Your task to perform on an android device: turn off wifi Image 0: 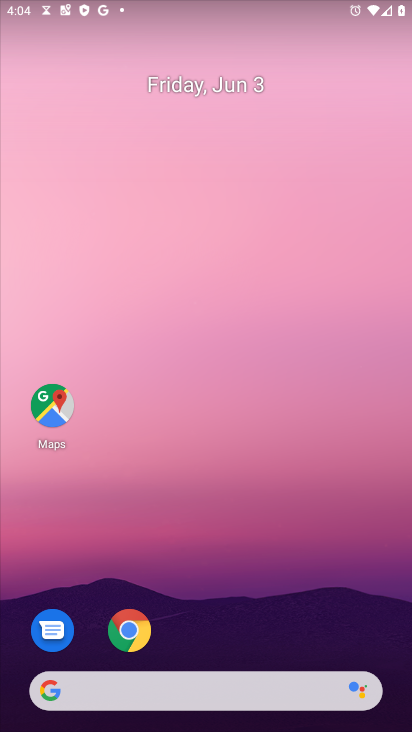
Step 0: drag from (229, 607) to (184, 30)
Your task to perform on an android device: turn off wifi Image 1: 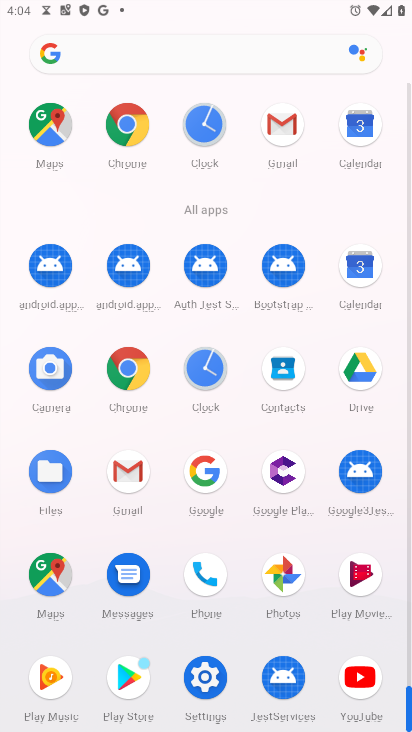
Step 1: click (204, 676)
Your task to perform on an android device: turn off wifi Image 2: 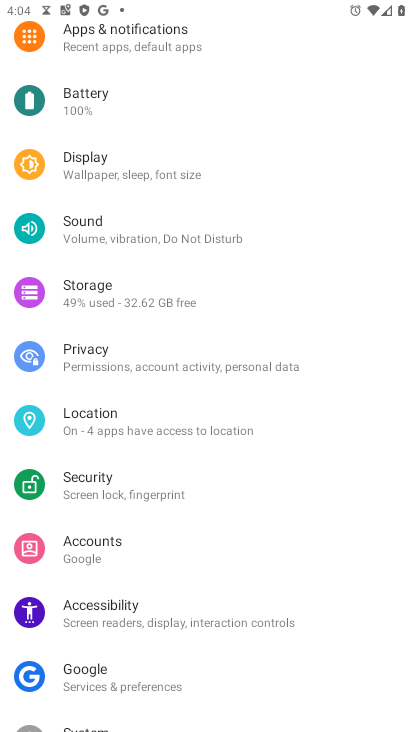
Step 2: drag from (206, 103) to (196, 615)
Your task to perform on an android device: turn off wifi Image 3: 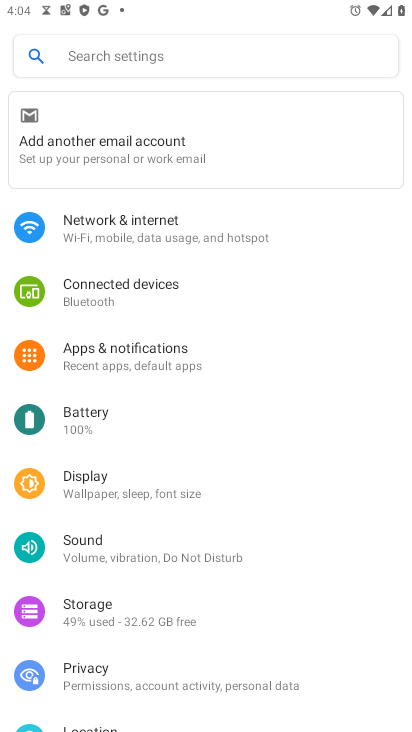
Step 3: click (165, 228)
Your task to perform on an android device: turn off wifi Image 4: 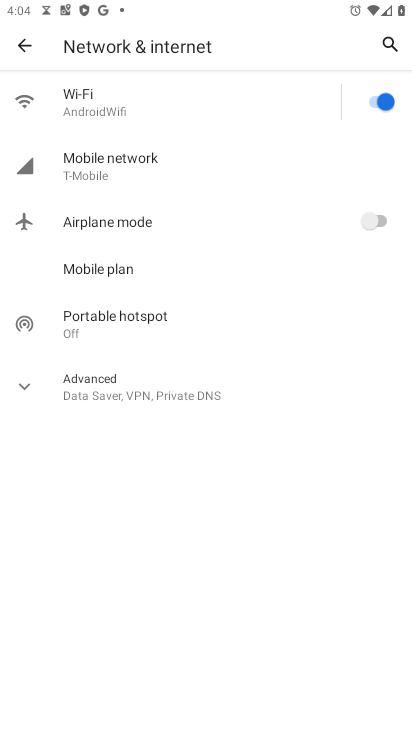
Step 4: click (380, 93)
Your task to perform on an android device: turn off wifi Image 5: 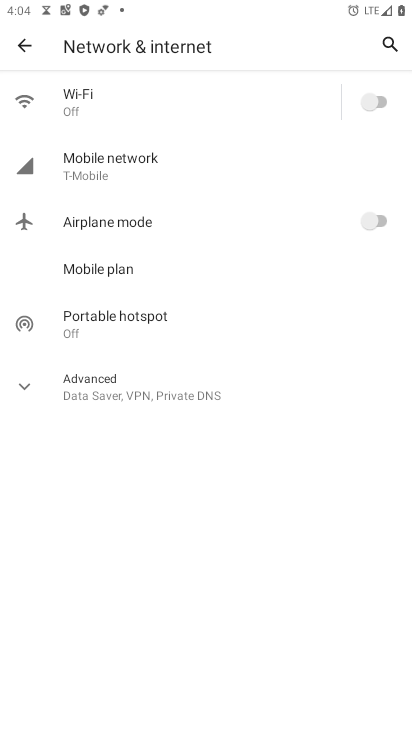
Step 5: click (23, 385)
Your task to perform on an android device: turn off wifi Image 6: 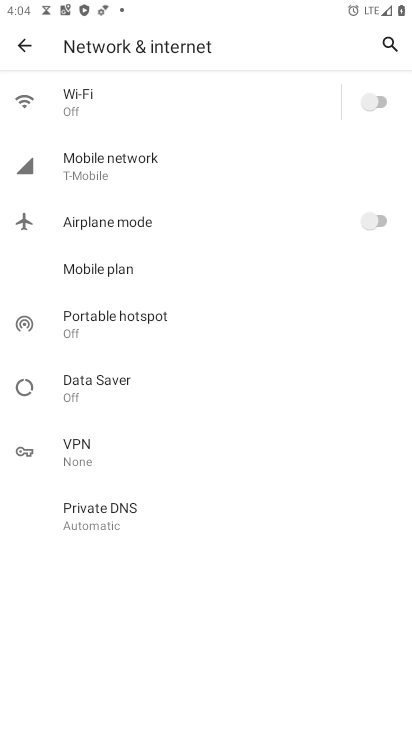
Step 6: task complete